Your task to perform on an android device: Search for the best gaming monitor on Best Buy Image 0: 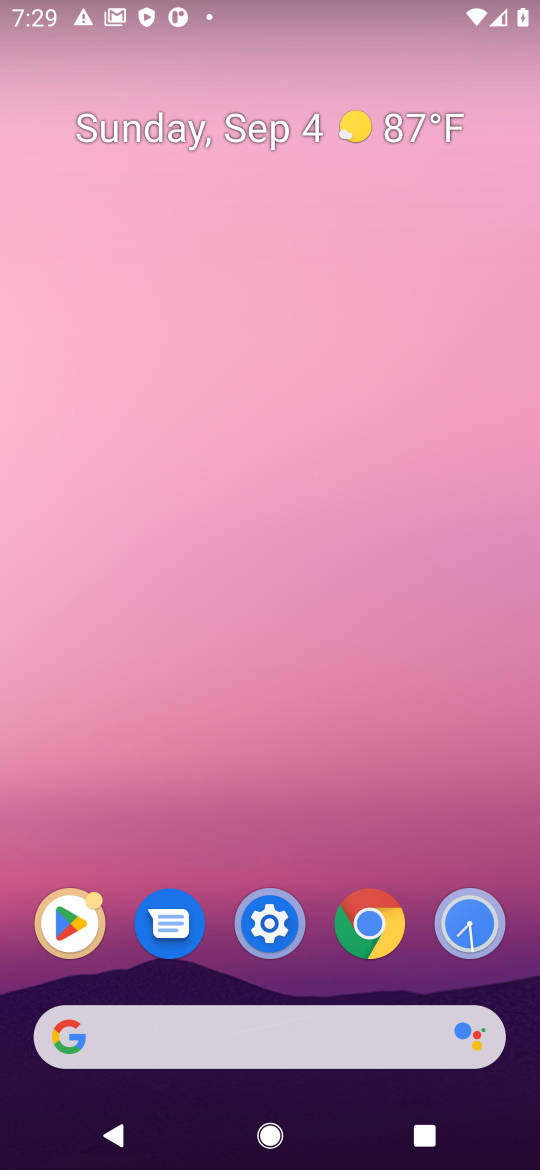
Step 0: press home button
Your task to perform on an android device: Search for the best gaming monitor on Best Buy Image 1: 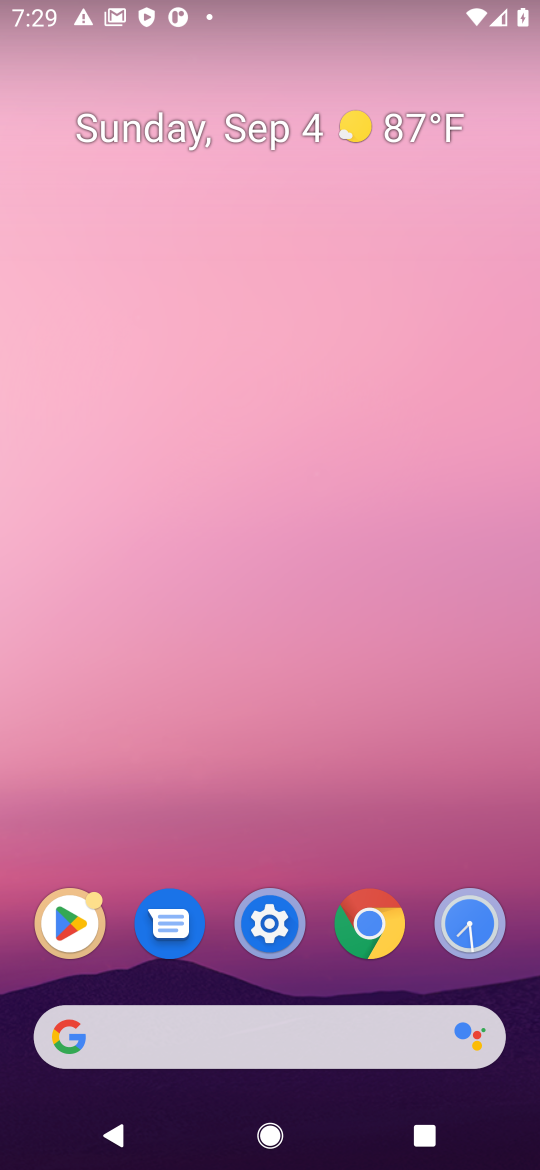
Step 1: click (356, 1029)
Your task to perform on an android device: Search for the best gaming monitor on Best Buy Image 2: 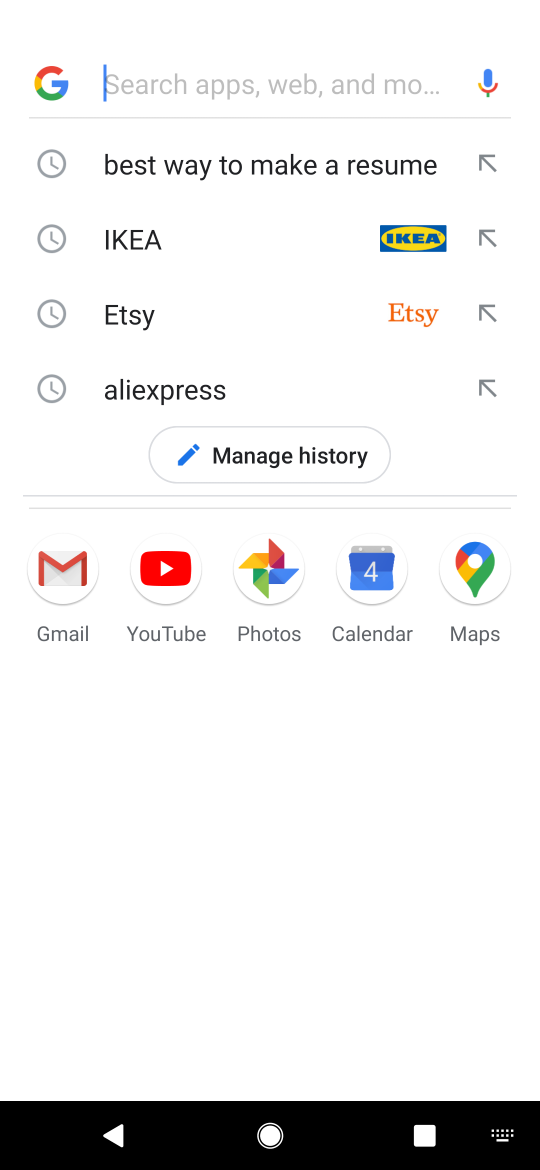
Step 2: press enter
Your task to perform on an android device: Search for the best gaming monitor on Best Buy Image 3: 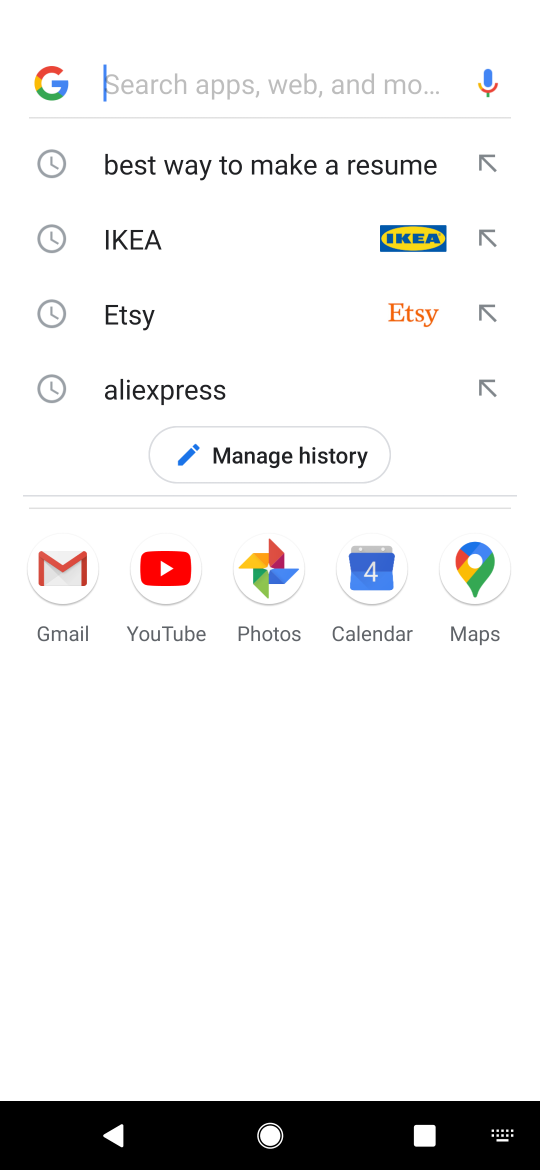
Step 3: type "best buy"
Your task to perform on an android device: Search for the best gaming monitor on Best Buy Image 4: 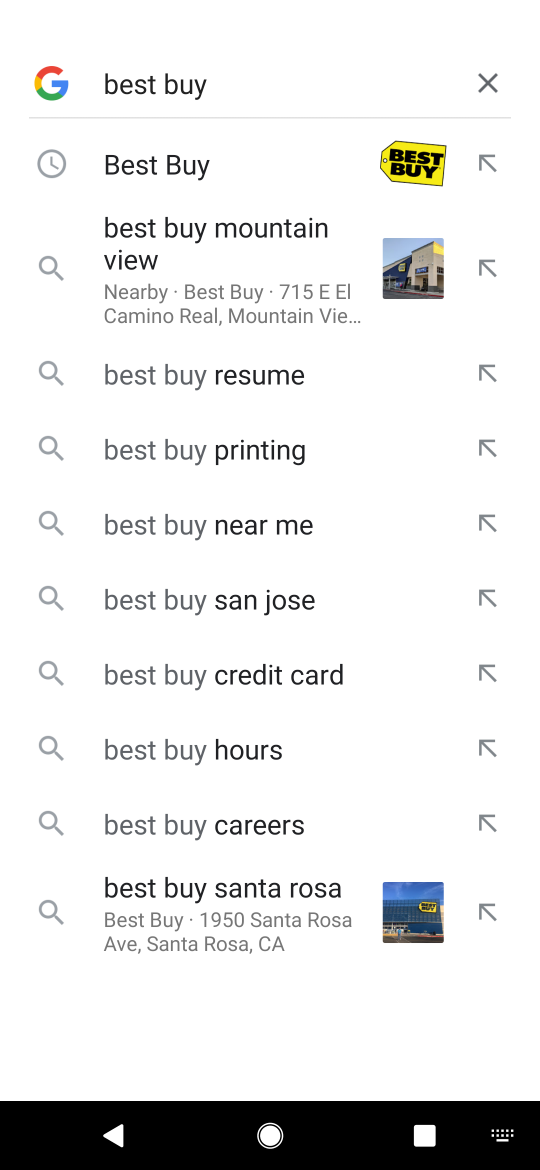
Step 4: click (215, 154)
Your task to perform on an android device: Search for the best gaming monitor on Best Buy Image 5: 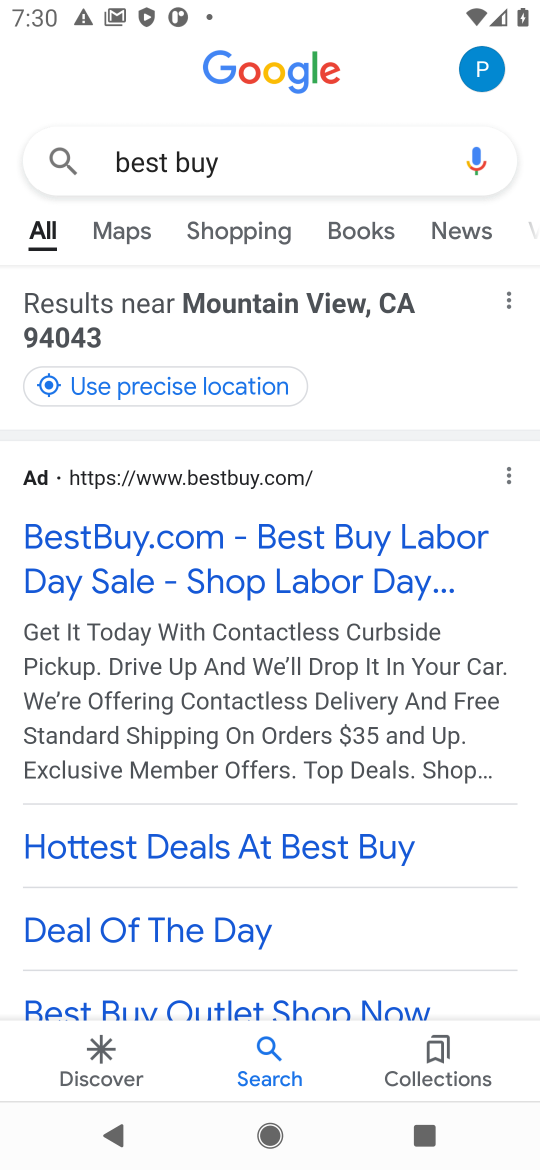
Step 5: click (307, 561)
Your task to perform on an android device: Search for the best gaming monitor on Best Buy Image 6: 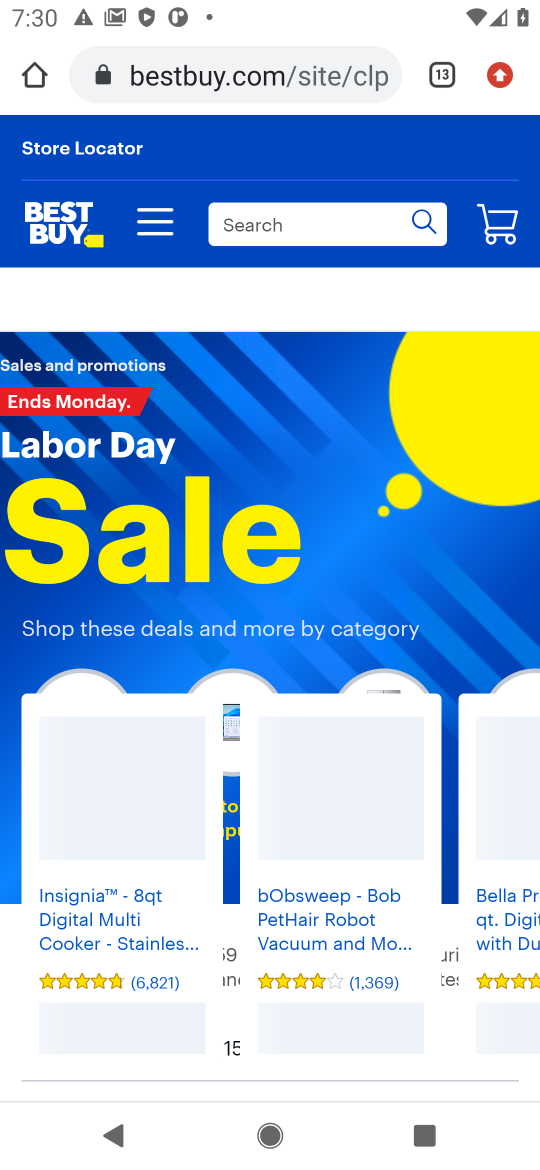
Step 6: click (318, 219)
Your task to perform on an android device: Search for the best gaming monitor on Best Buy Image 7: 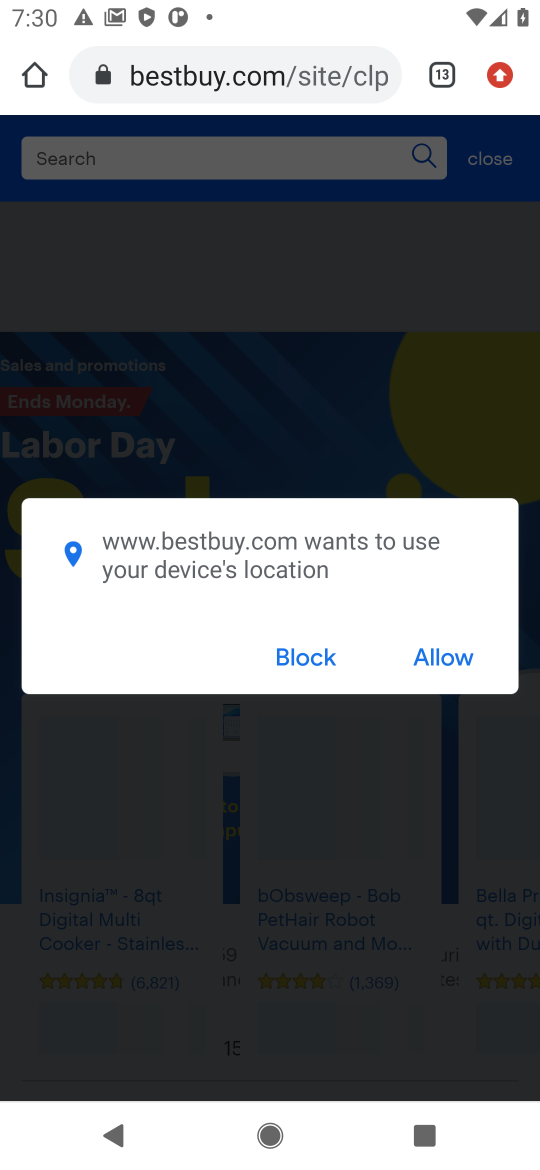
Step 7: click (319, 644)
Your task to perform on an android device: Search for the best gaming monitor on Best Buy Image 8: 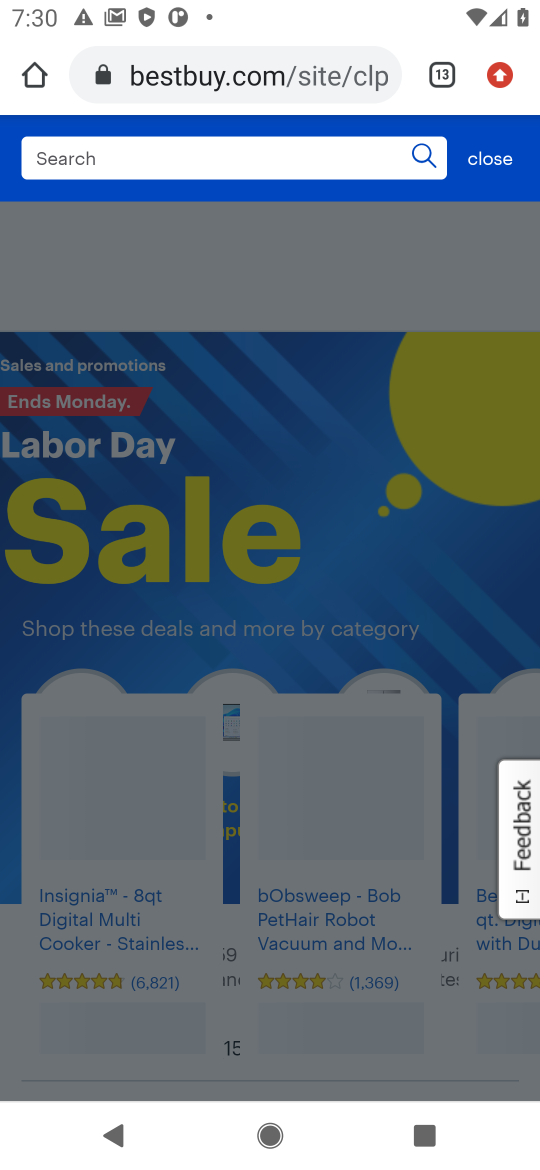
Step 8: click (108, 153)
Your task to perform on an android device: Search for the best gaming monitor on Best Buy Image 9: 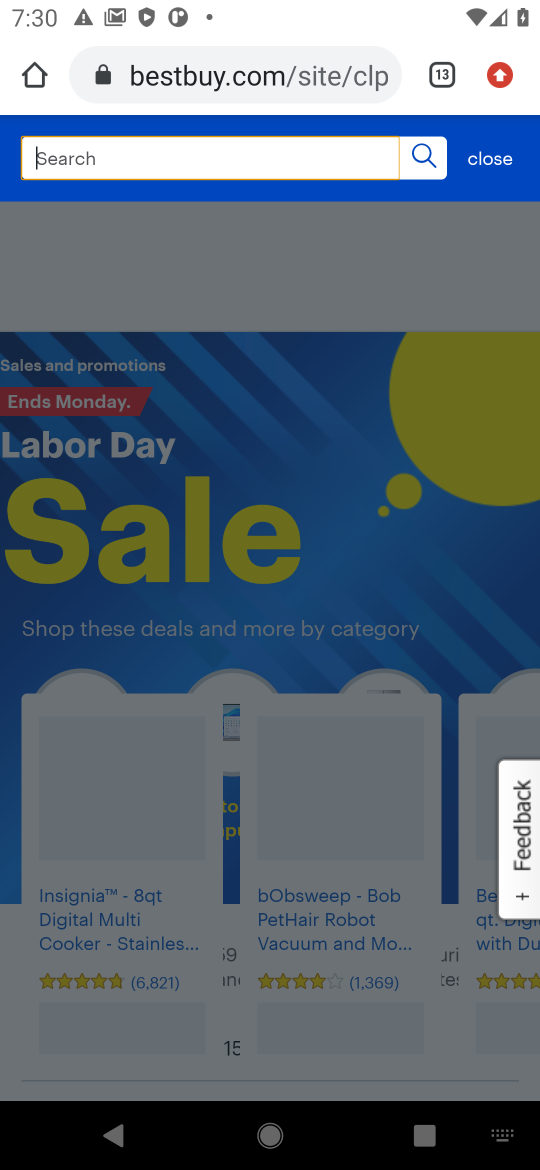
Step 9: press enter
Your task to perform on an android device: Search for the best gaming monitor on Best Buy Image 10: 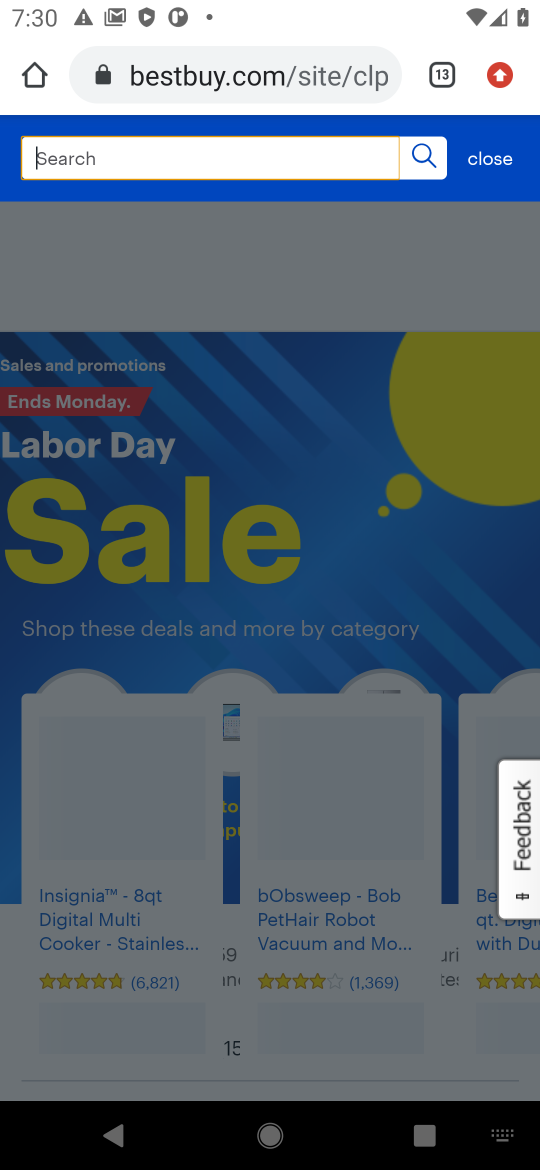
Step 10: type "gaming monitor"
Your task to perform on an android device: Search for the best gaming monitor on Best Buy Image 11: 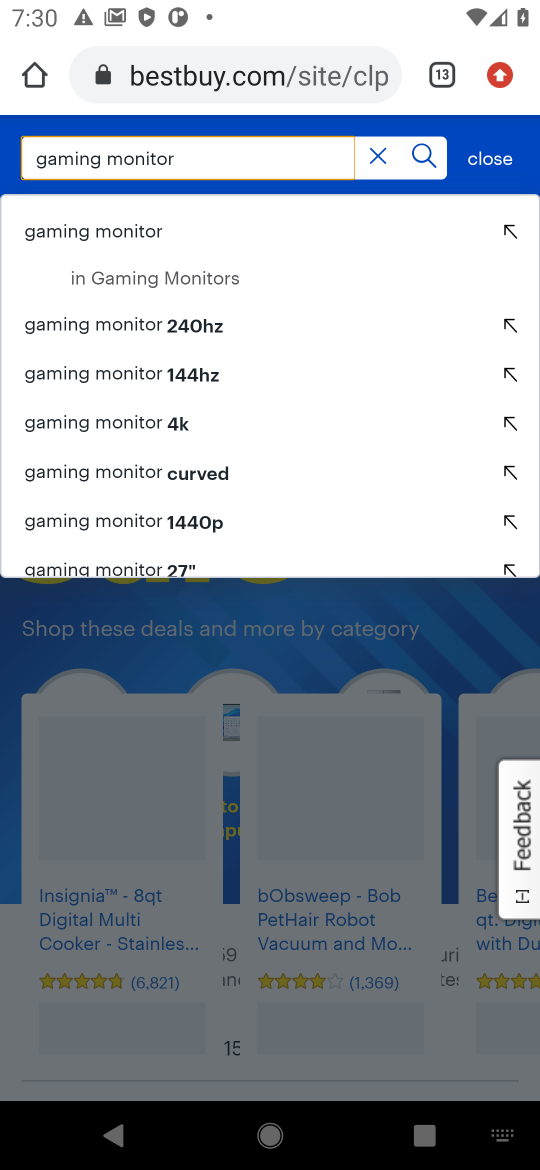
Step 11: click (133, 220)
Your task to perform on an android device: Search for the best gaming monitor on Best Buy Image 12: 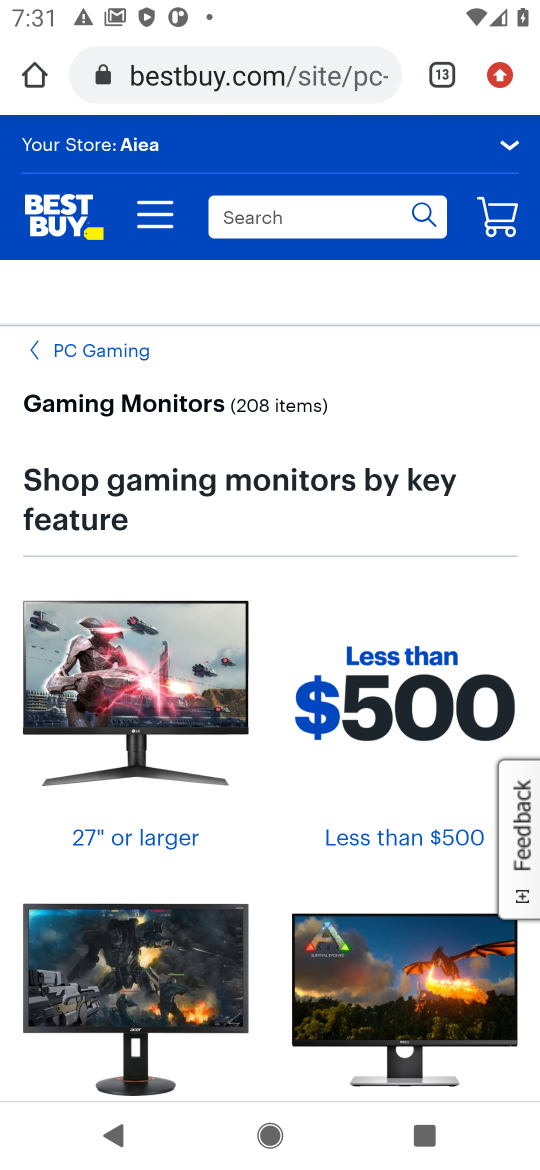
Step 12: task complete